Your task to perform on an android device: allow notifications from all sites in the chrome app Image 0: 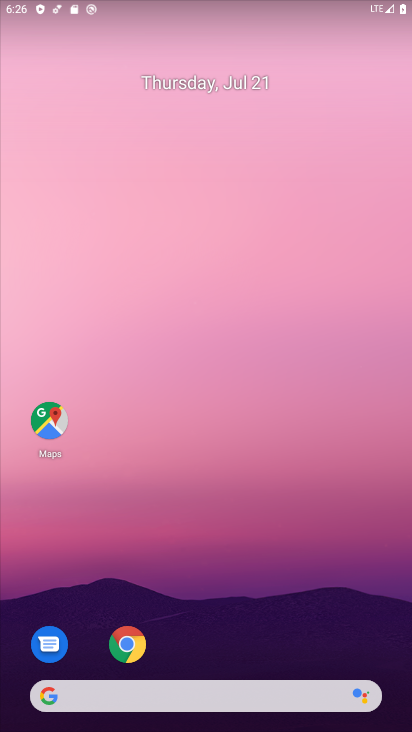
Step 0: drag from (189, 713) to (56, 86)
Your task to perform on an android device: allow notifications from all sites in the chrome app Image 1: 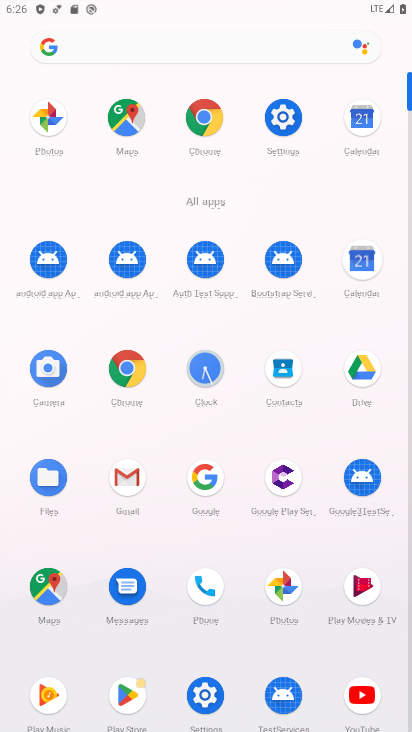
Step 1: click (200, 121)
Your task to perform on an android device: allow notifications from all sites in the chrome app Image 2: 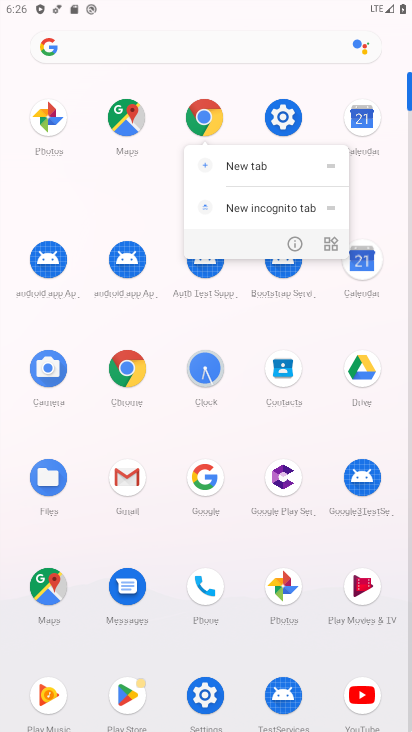
Step 2: click (209, 133)
Your task to perform on an android device: allow notifications from all sites in the chrome app Image 3: 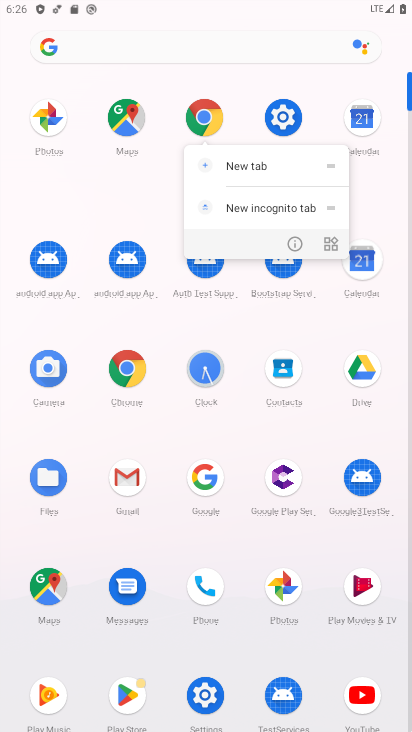
Step 3: click (209, 133)
Your task to perform on an android device: allow notifications from all sites in the chrome app Image 4: 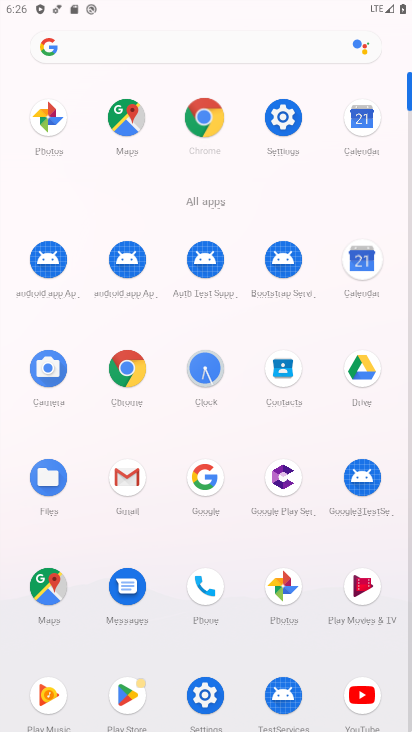
Step 4: click (209, 133)
Your task to perform on an android device: allow notifications from all sites in the chrome app Image 5: 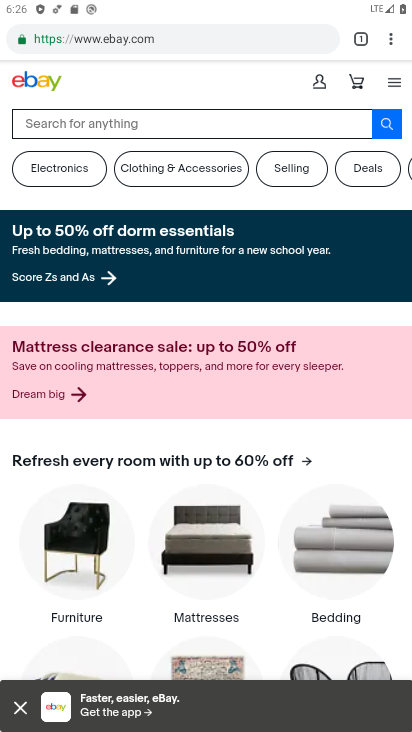
Step 5: click (390, 34)
Your task to perform on an android device: allow notifications from all sites in the chrome app Image 6: 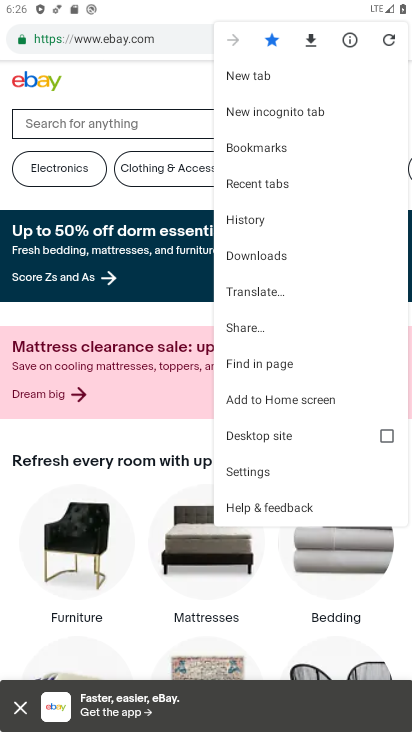
Step 6: click (248, 474)
Your task to perform on an android device: allow notifications from all sites in the chrome app Image 7: 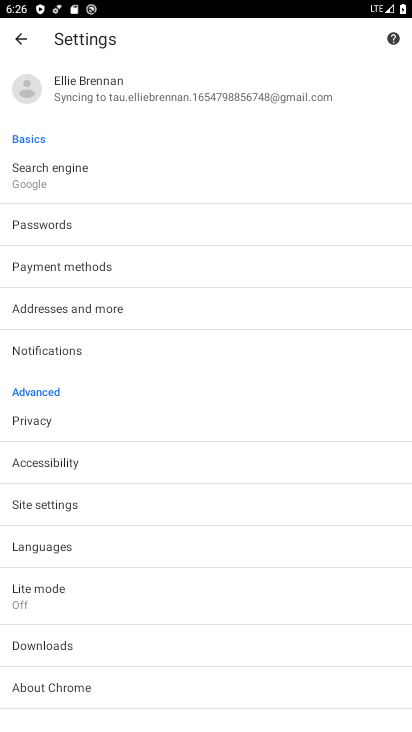
Step 7: click (89, 347)
Your task to perform on an android device: allow notifications from all sites in the chrome app Image 8: 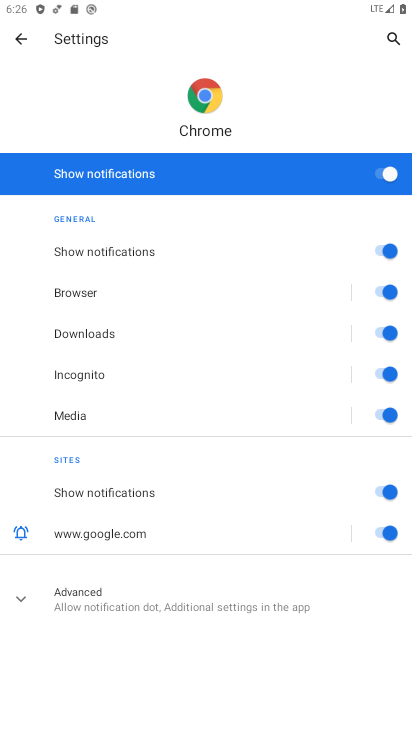
Step 8: task complete